Your task to perform on an android device: change the upload size in google photos Image 0: 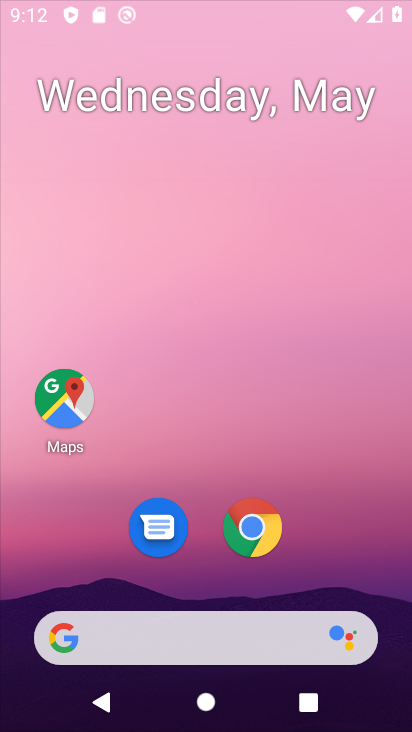
Step 0: press home button
Your task to perform on an android device: change the upload size in google photos Image 1: 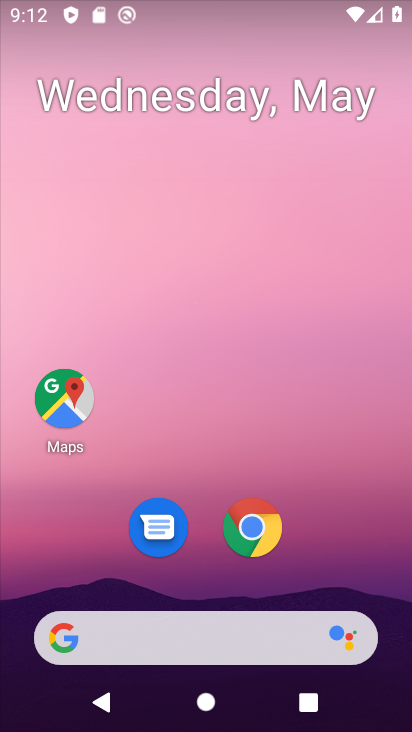
Step 1: drag from (368, 492) to (277, 98)
Your task to perform on an android device: change the upload size in google photos Image 2: 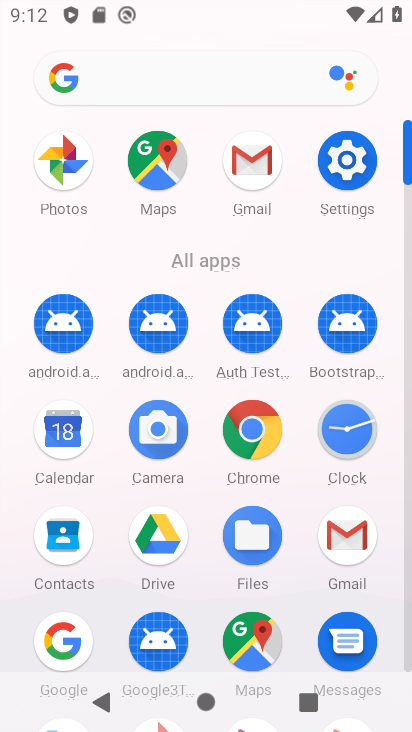
Step 2: click (218, 41)
Your task to perform on an android device: change the upload size in google photos Image 3: 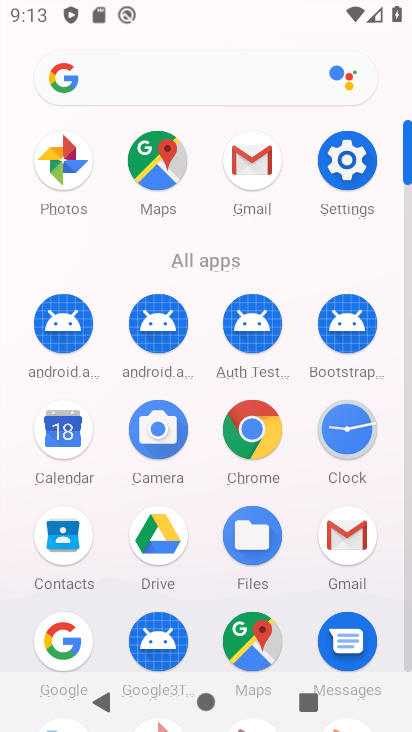
Step 3: drag from (406, 580) to (358, 730)
Your task to perform on an android device: change the upload size in google photos Image 4: 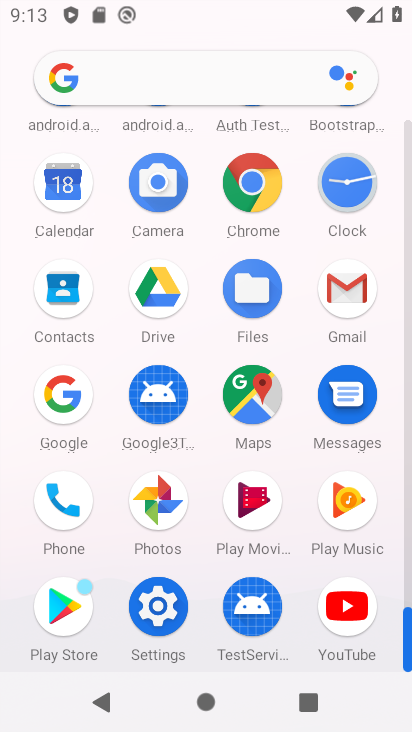
Step 4: click (138, 513)
Your task to perform on an android device: change the upload size in google photos Image 5: 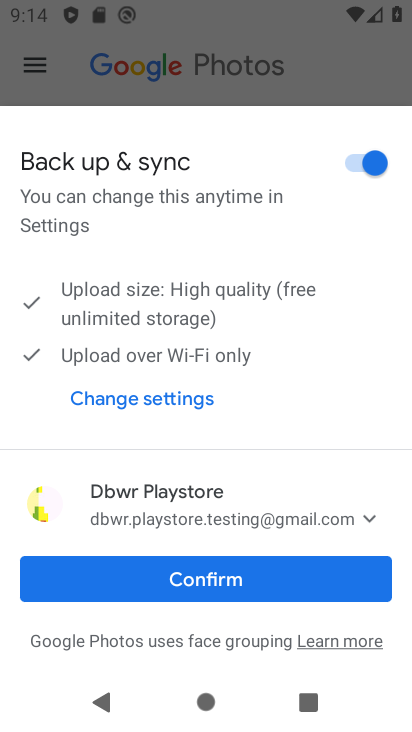
Step 5: click (163, 570)
Your task to perform on an android device: change the upload size in google photos Image 6: 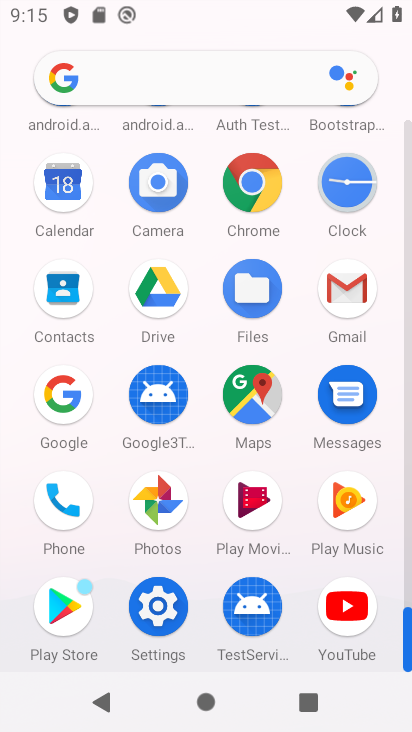
Step 6: click (165, 506)
Your task to perform on an android device: change the upload size in google photos Image 7: 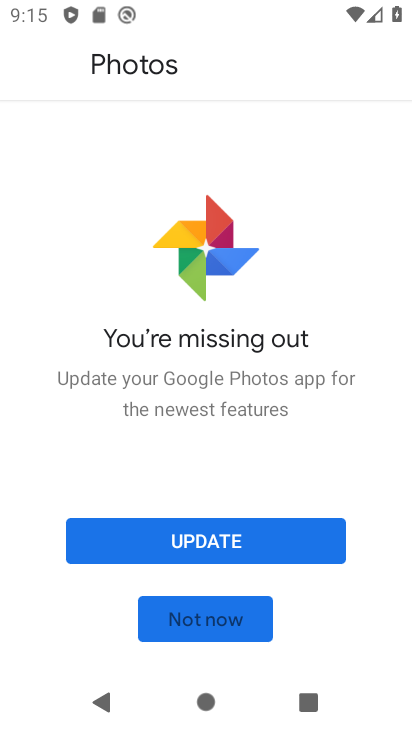
Step 7: click (219, 542)
Your task to perform on an android device: change the upload size in google photos Image 8: 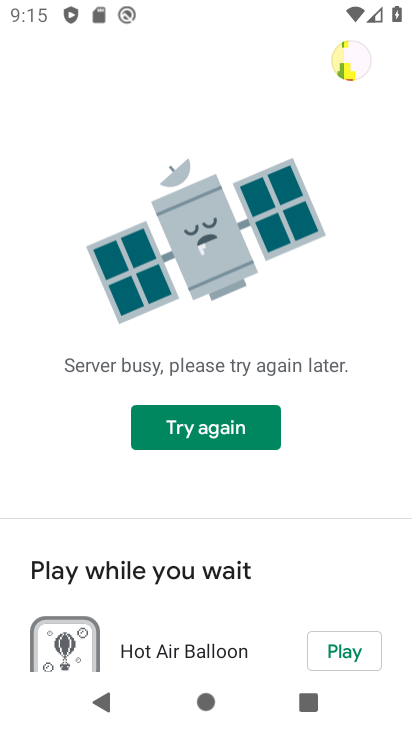
Step 8: task complete